Your task to perform on an android device: Open CNN.com Image 0: 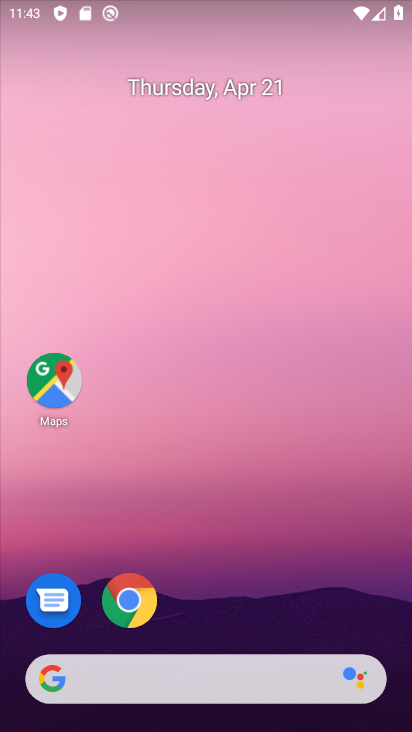
Step 0: click (127, 615)
Your task to perform on an android device: Open CNN.com Image 1: 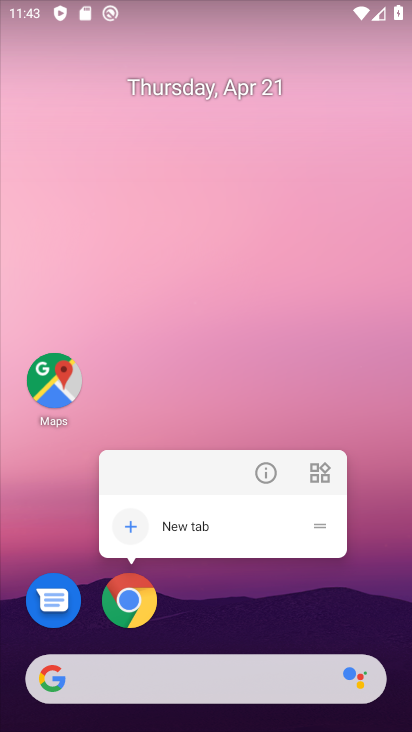
Step 1: click (128, 605)
Your task to perform on an android device: Open CNN.com Image 2: 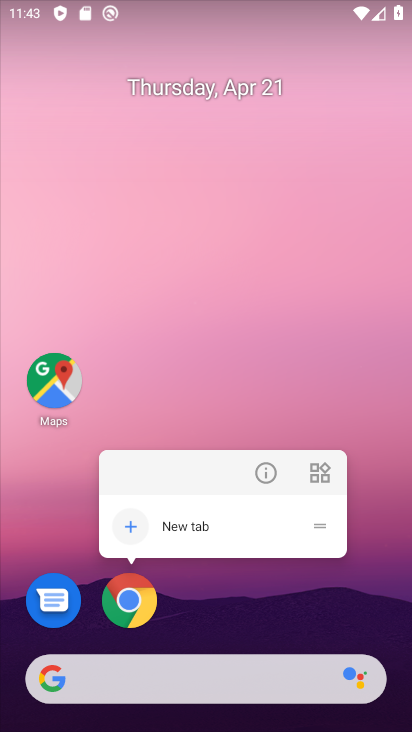
Step 2: click (137, 598)
Your task to perform on an android device: Open CNN.com Image 3: 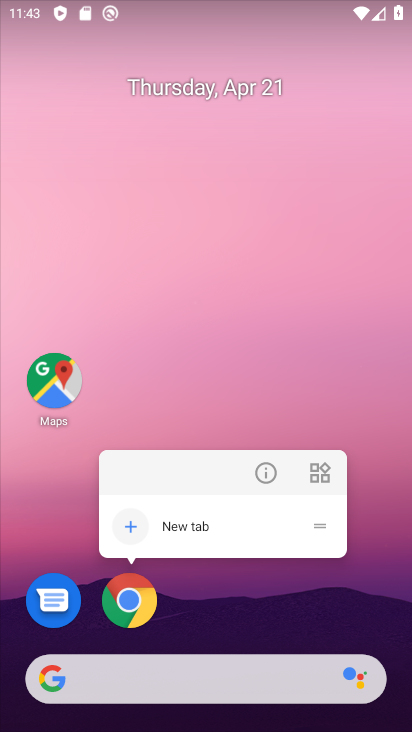
Step 3: click (145, 584)
Your task to perform on an android device: Open CNN.com Image 4: 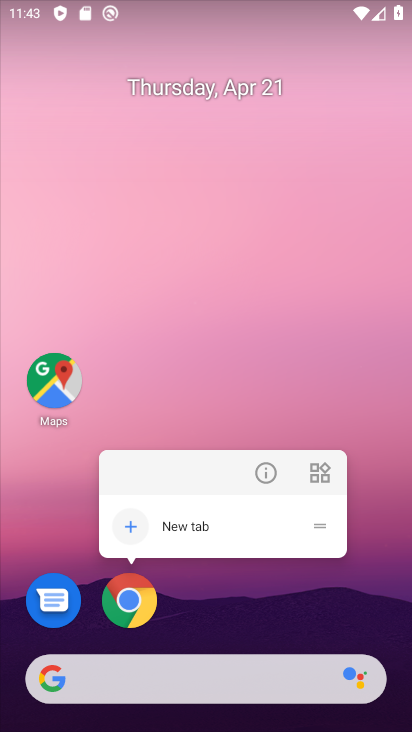
Step 4: click (144, 587)
Your task to perform on an android device: Open CNN.com Image 5: 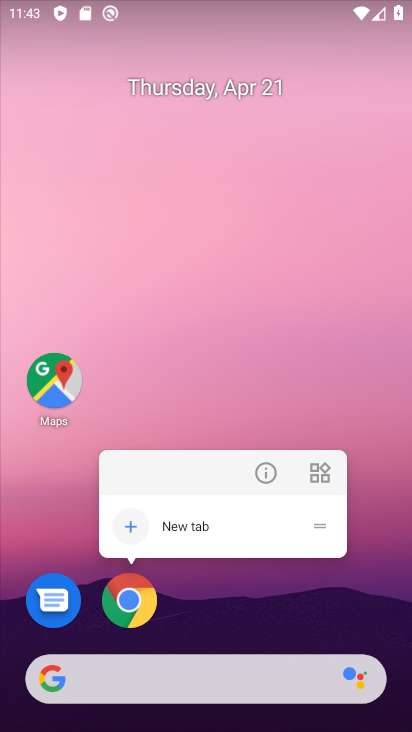
Step 5: click (122, 601)
Your task to perform on an android device: Open CNN.com Image 6: 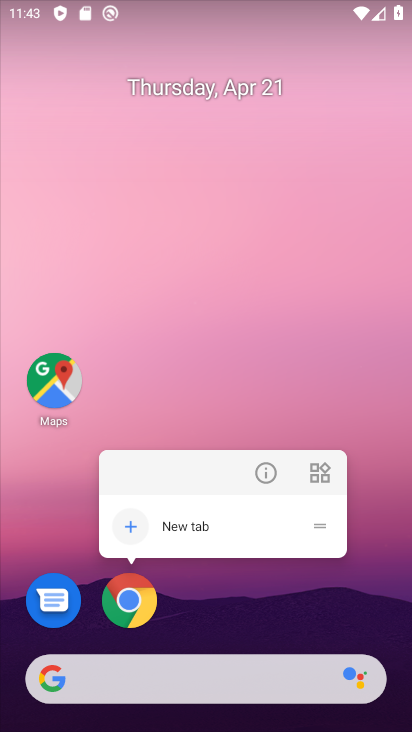
Step 6: click (109, 587)
Your task to perform on an android device: Open CNN.com Image 7: 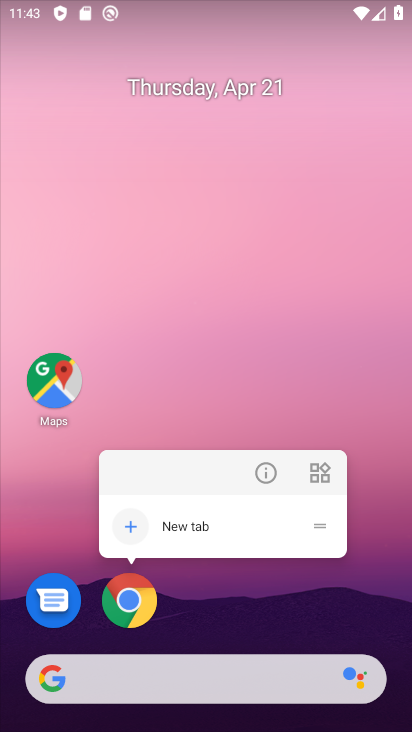
Step 7: click (142, 614)
Your task to perform on an android device: Open CNN.com Image 8: 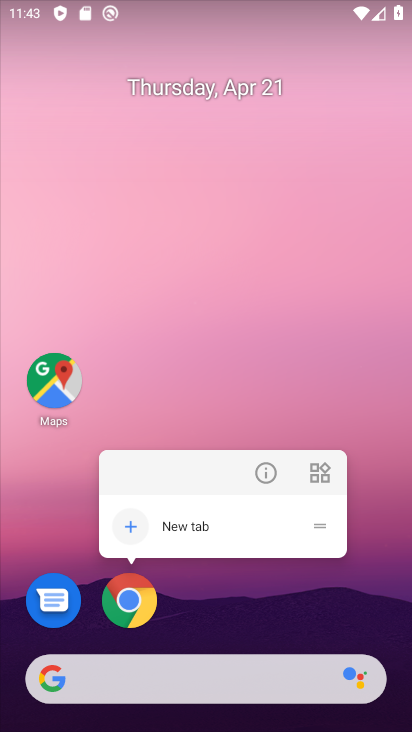
Step 8: click (140, 607)
Your task to perform on an android device: Open CNN.com Image 9: 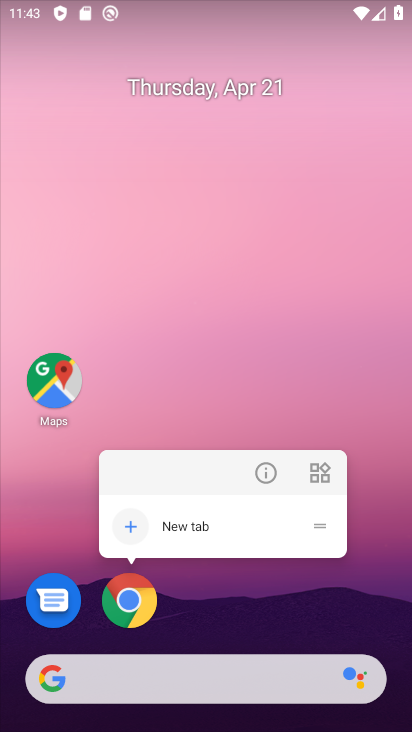
Step 9: click (137, 607)
Your task to perform on an android device: Open CNN.com Image 10: 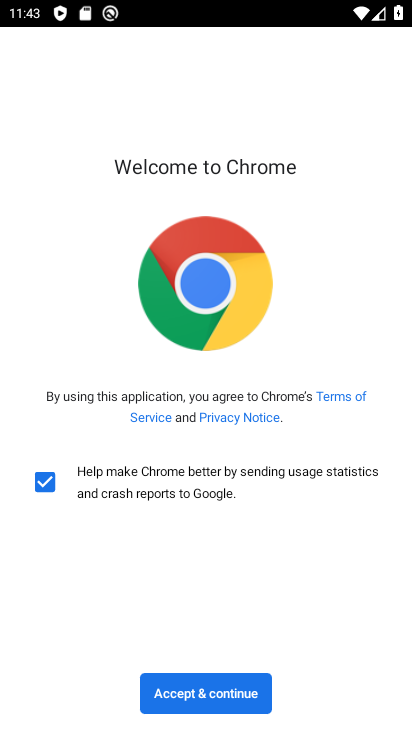
Step 10: click (236, 689)
Your task to perform on an android device: Open CNN.com Image 11: 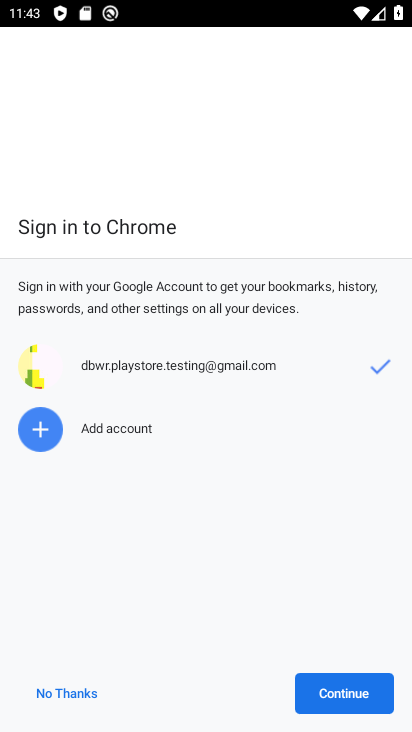
Step 11: click (374, 693)
Your task to perform on an android device: Open CNN.com Image 12: 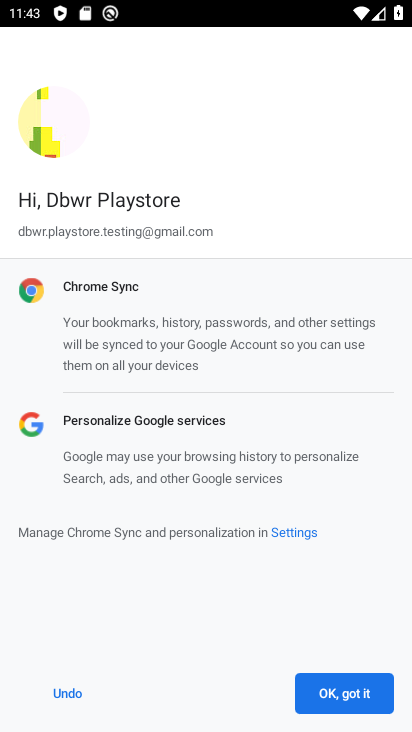
Step 12: click (363, 697)
Your task to perform on an android device: Open CNN.com Image 13: 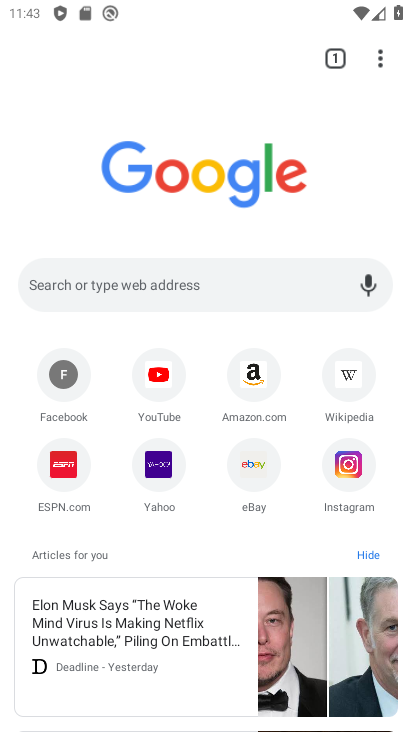
Step 13: click (187, 293)
Your task to perform on an android device: Open CNN.com Image 14: 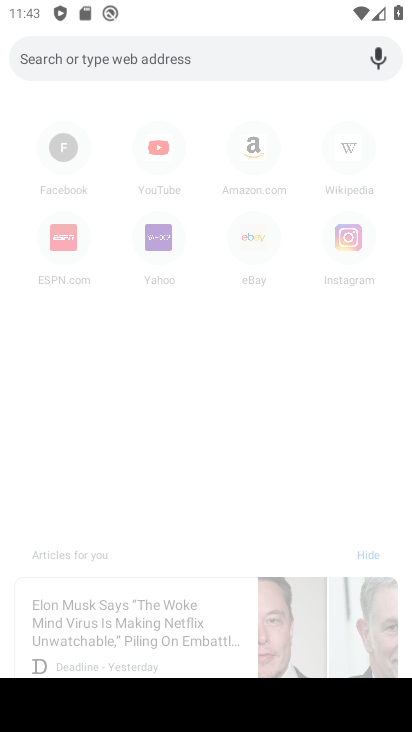
Step 14: type "CNN.com"
Your task to perform on an android device: Open CNN.com Image 15: 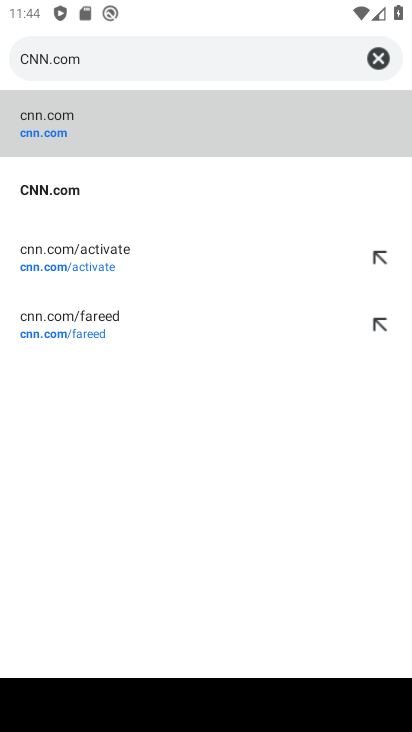
Step 15: click (213, 123)
Your task to perform on an android device: Open CNN.com Image 16: 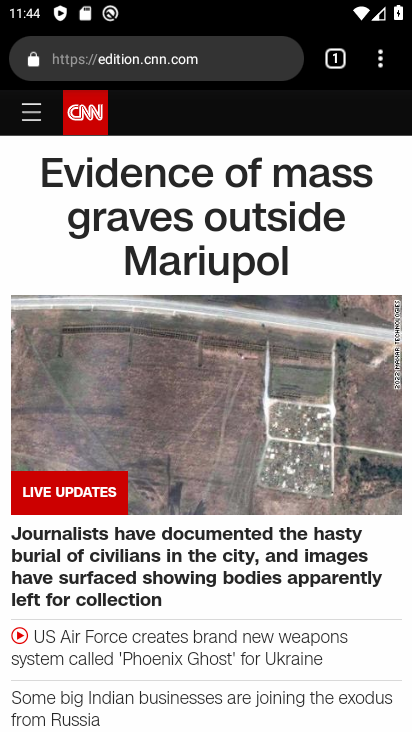
Step 16: task complete